Your task to perform on an android device: change the clock display to digital Image 0: 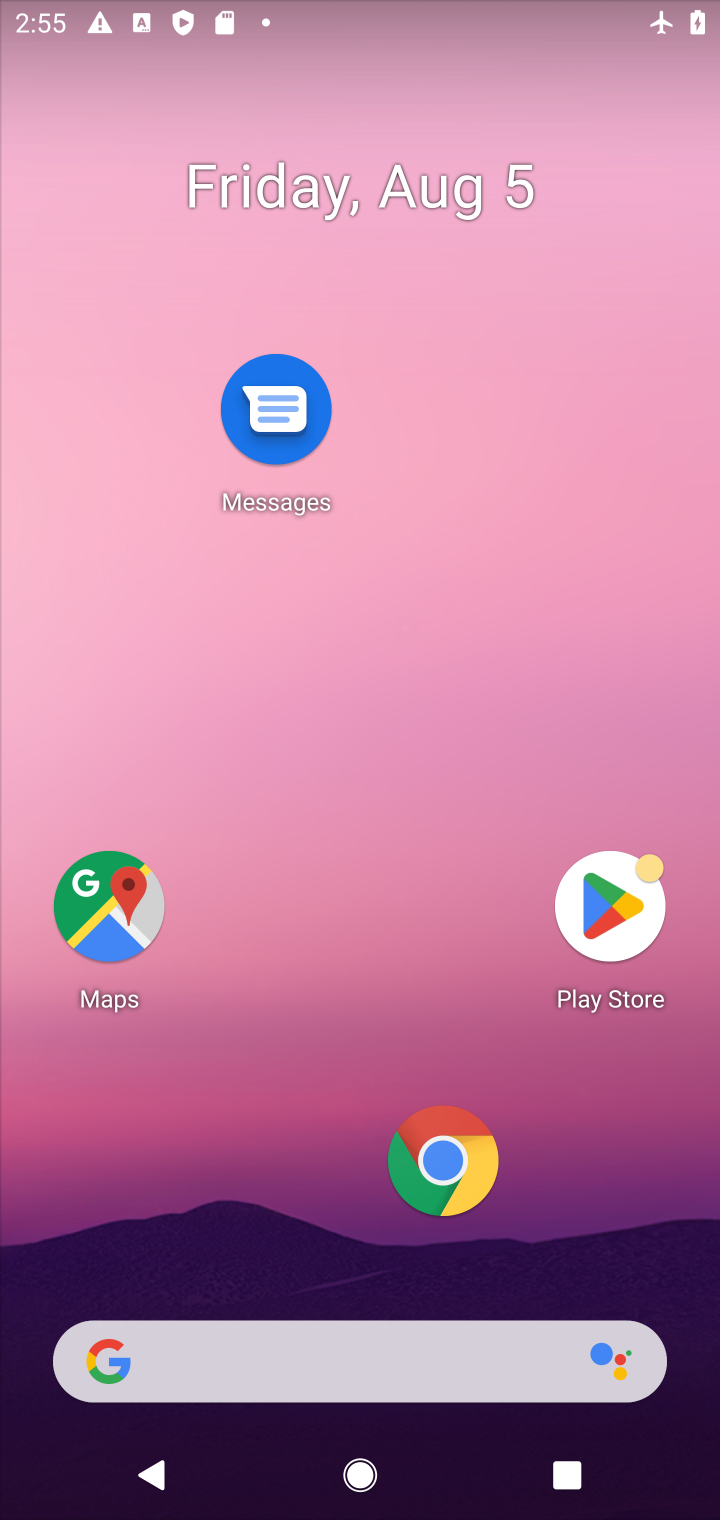
Step 0: drag from (311, 897) to (388, 409)
Your task to perform on an android device: change the clock display to digital Image 1: 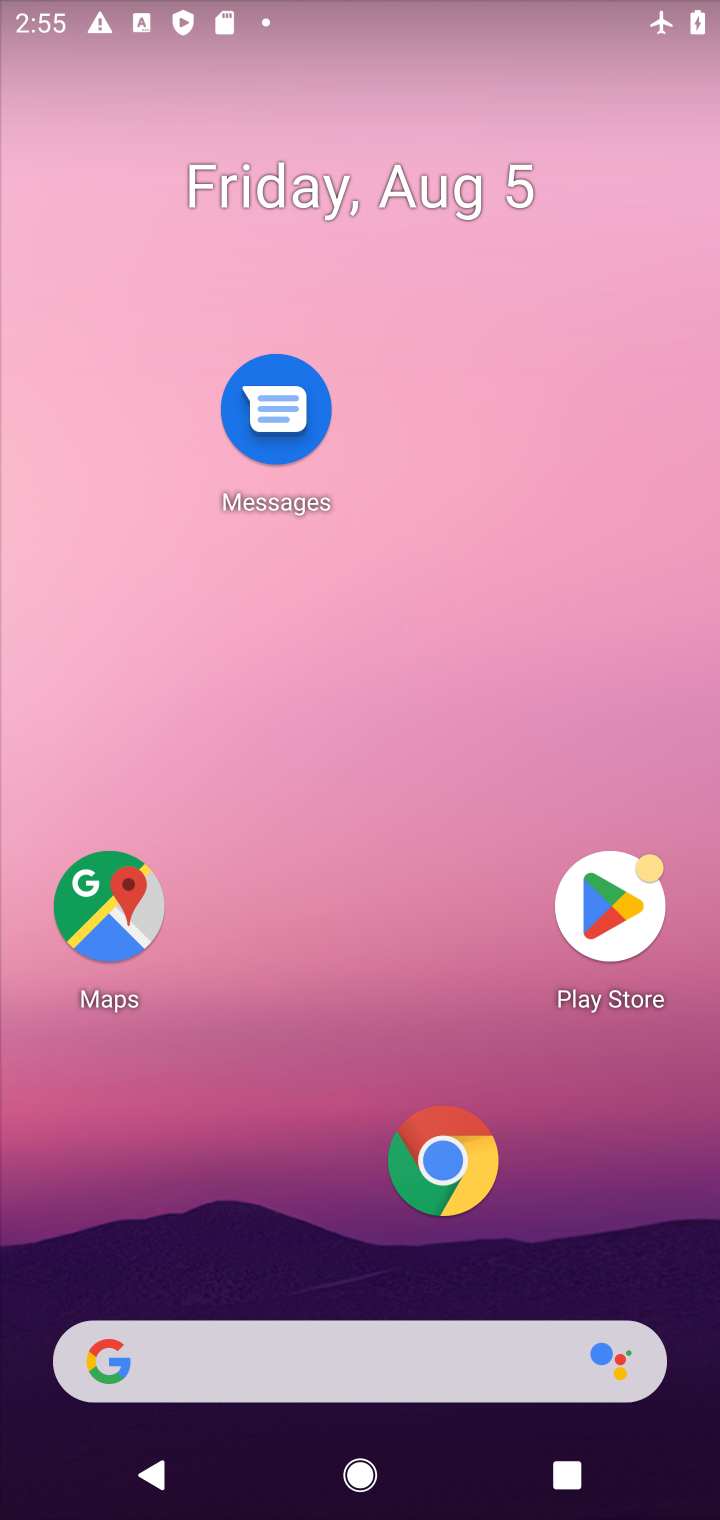
Step 1: drag from (319, 1171) to (410, 328)
Your task to perform on an android device: change the clock display to digital Image 2: 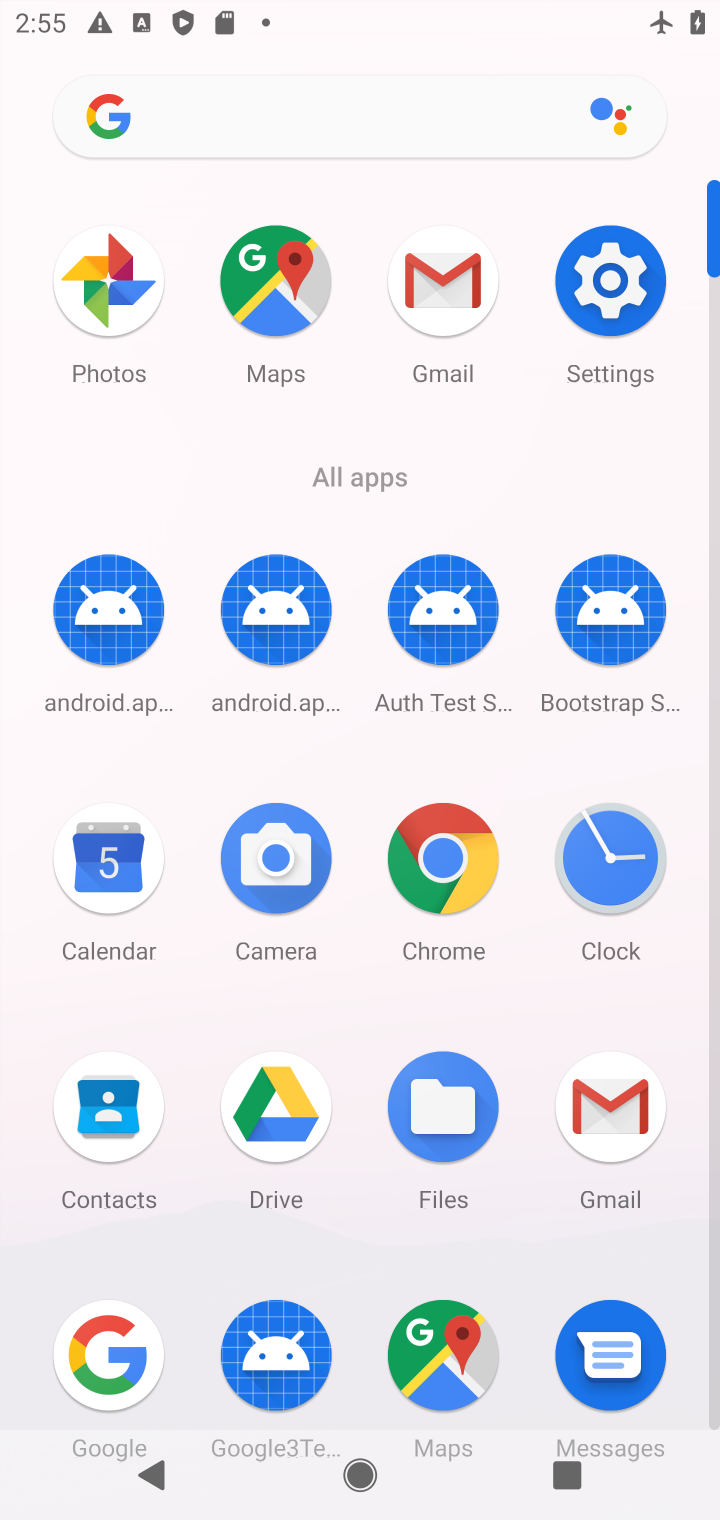
Step 2: click (597, 846)
Your task to perform on an android device: change the clock display to digital Image 3: 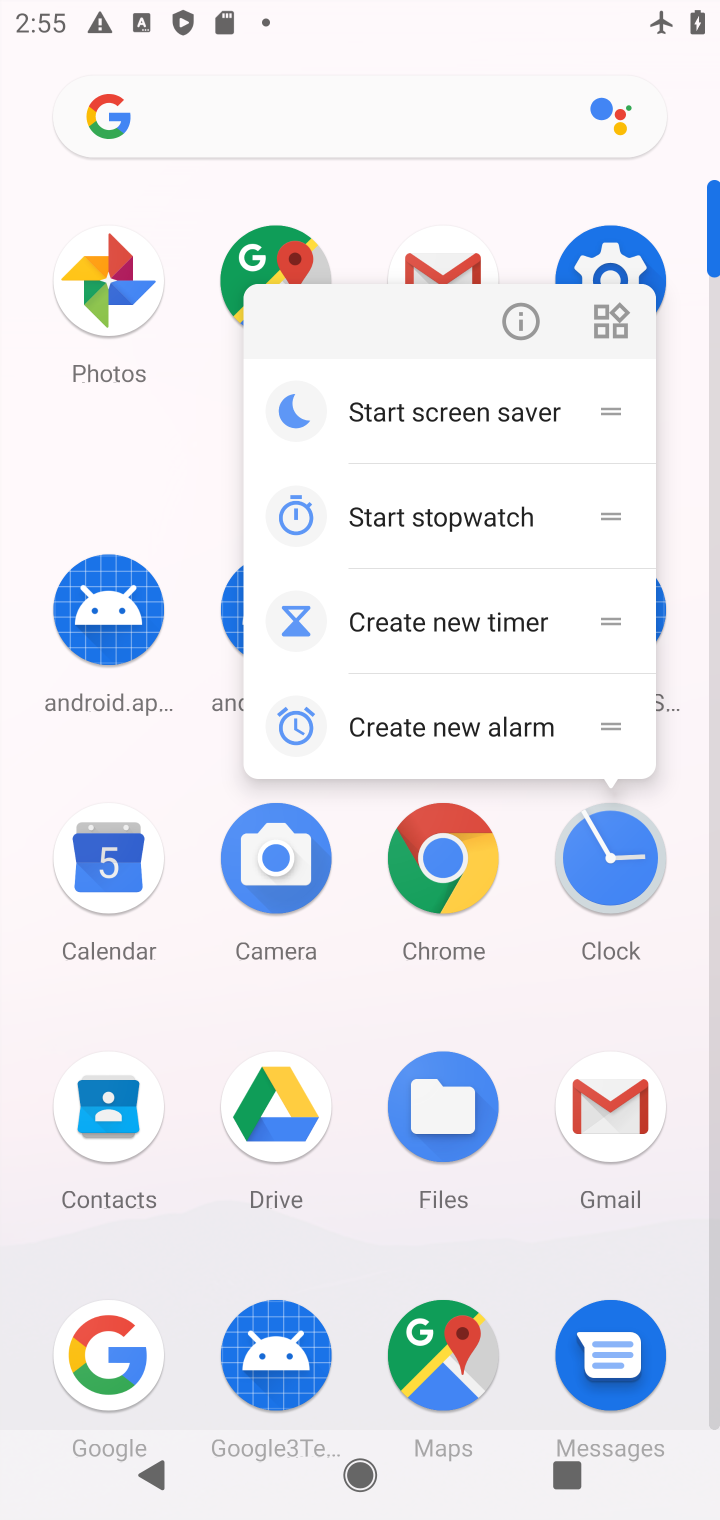
Step 3: click (613, 919)
Your task to perform on an android device: change the clock display to digital Image 4: 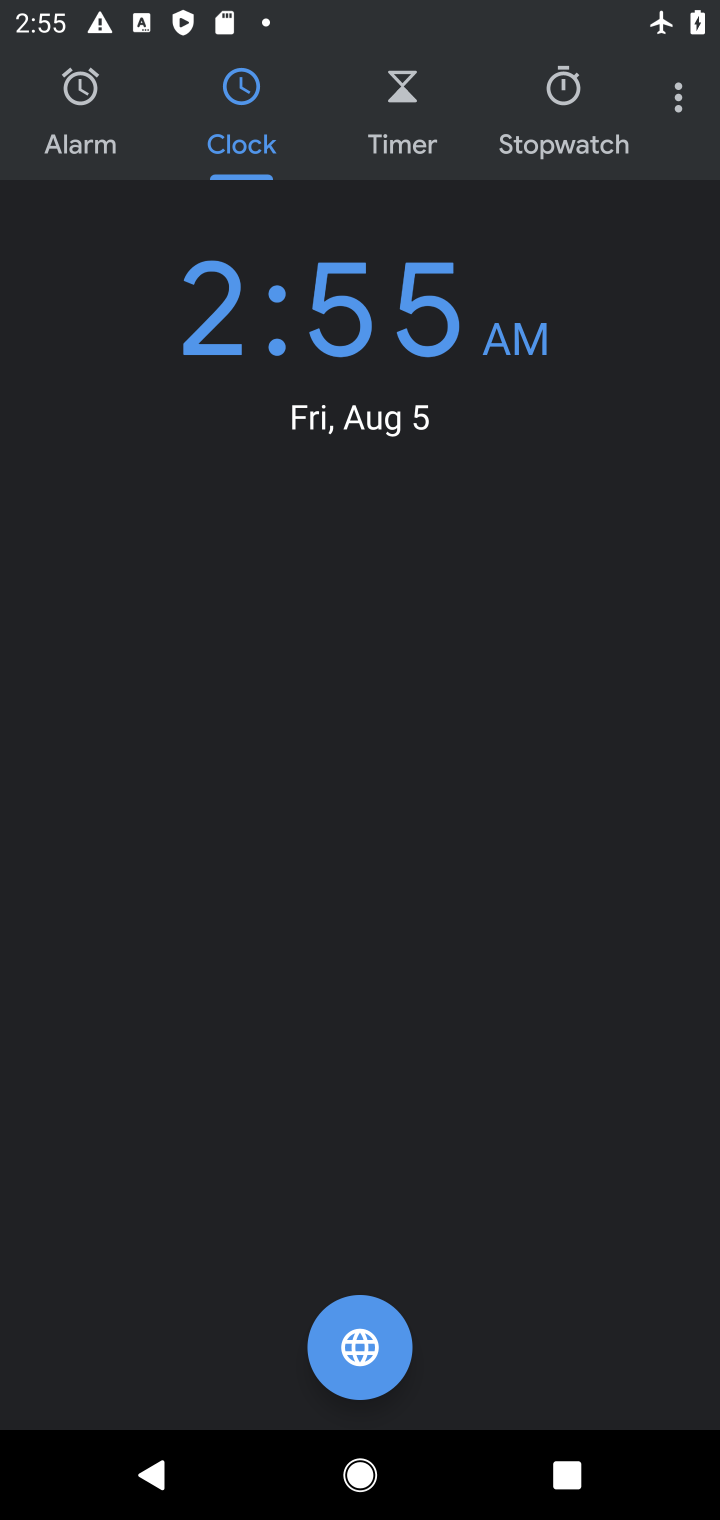
Step 4: click (660, 99)
Your task to perform on an android device: change the clock display to digital Image 5: 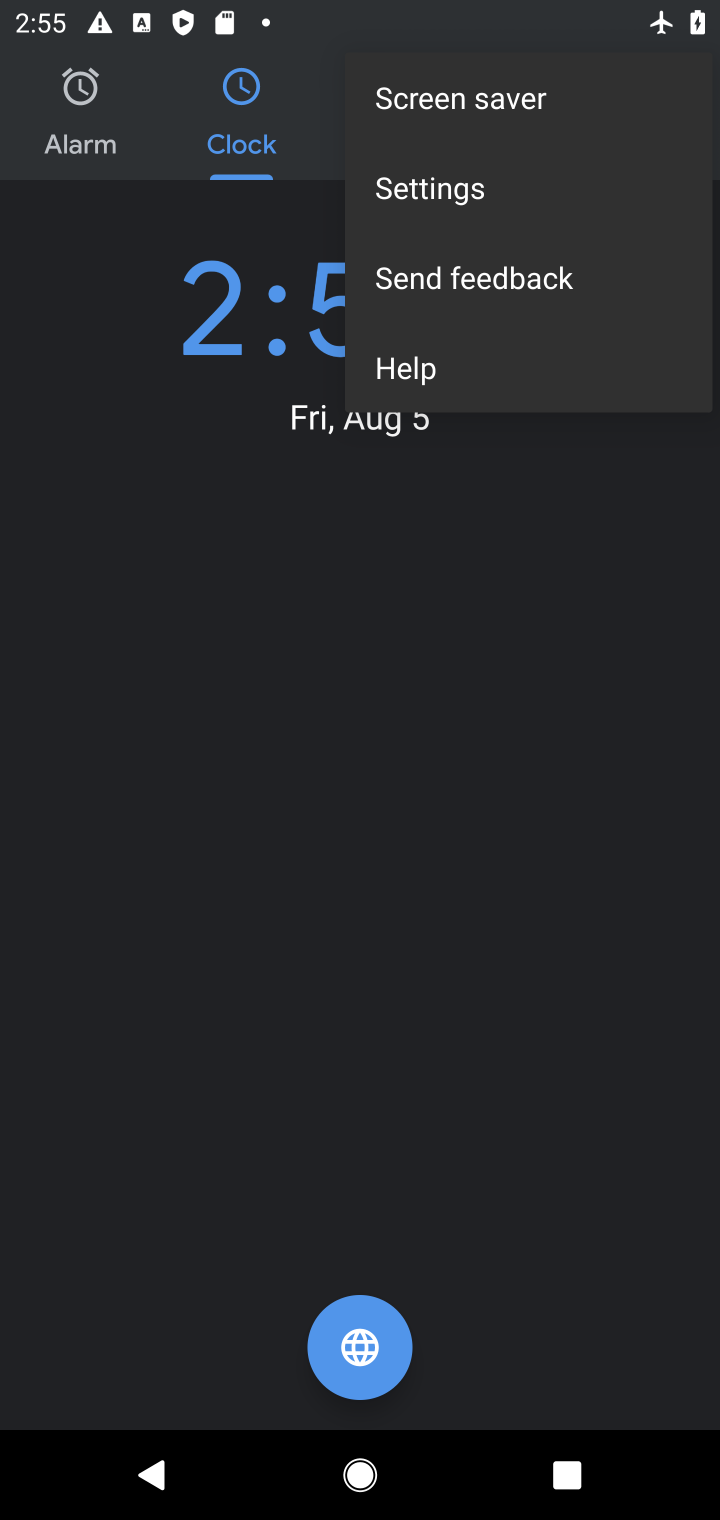
Step 5: click (470, 187)
Your task to perform on an android device: change the clock display to digital Image 6: 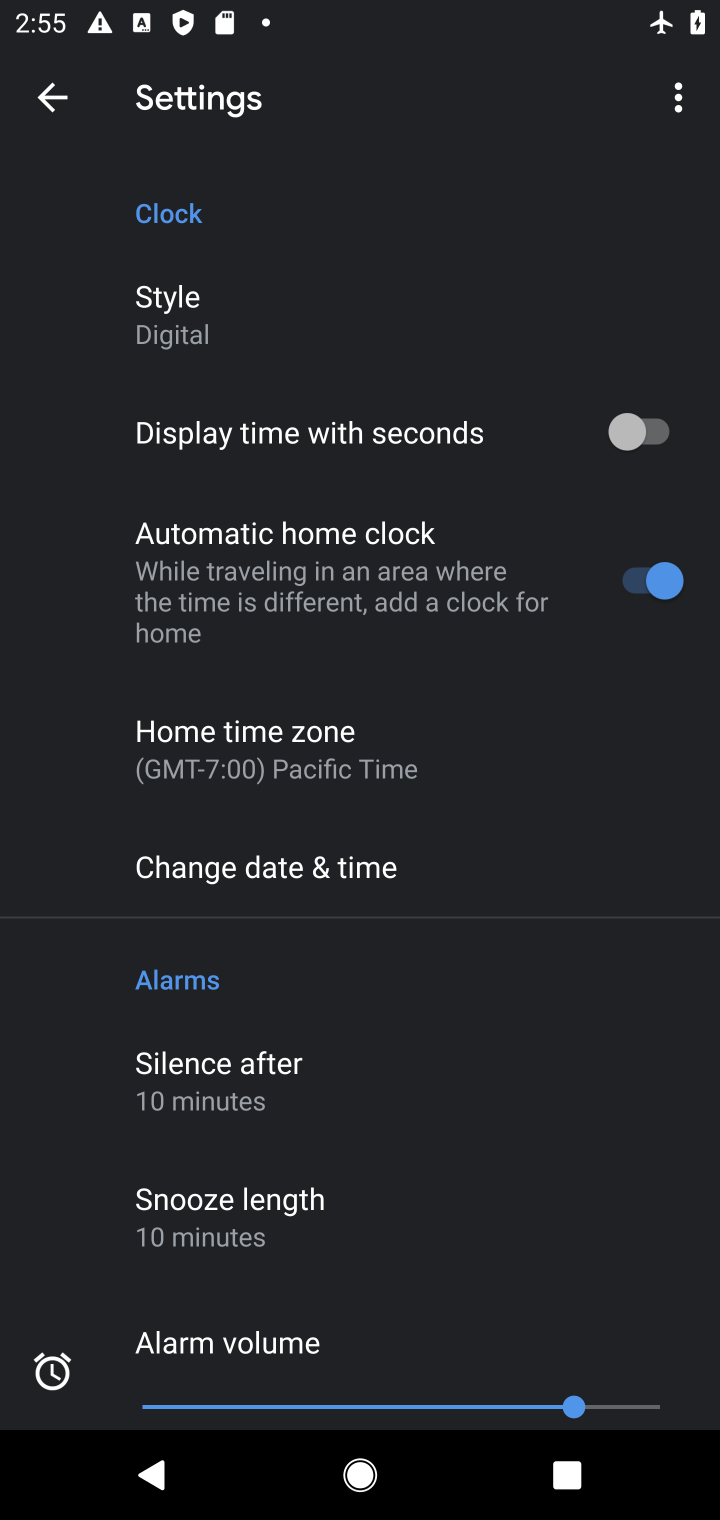
Step 6: task complete